Your task to perform on an android device: What's the weather? Image 0: 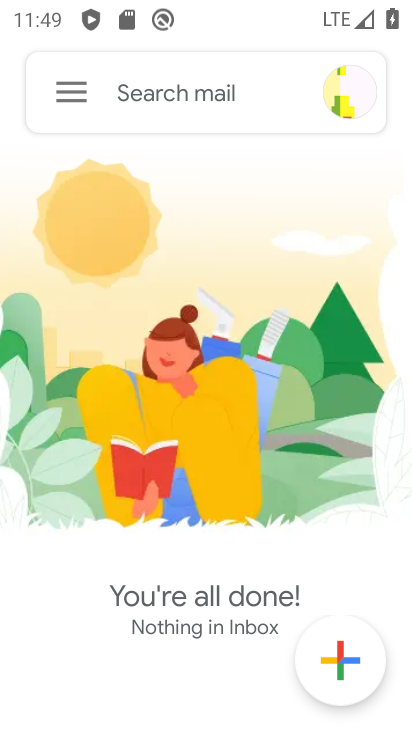
Step 0: press home button
Your task to perform on an android device: What's the weather? Image 1: 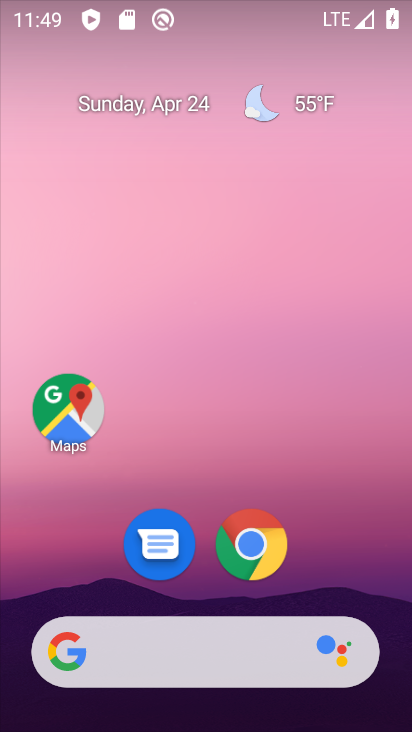
Step 1: click (239, 551)
Your task to perform on an android device: What's the weather? Image 2: 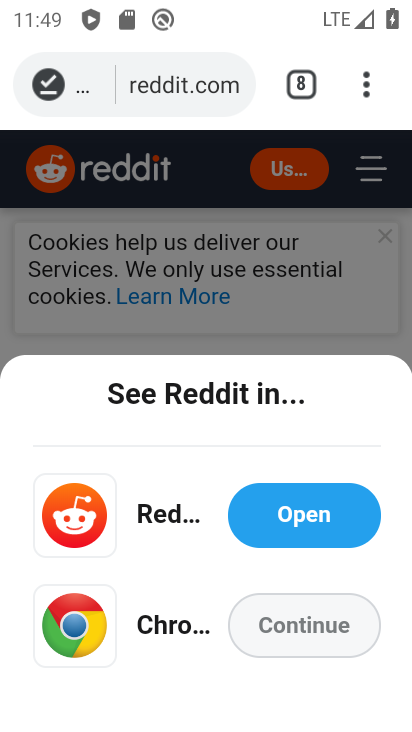
Step 2: click (303, 94)
Your task to perform on an android device: What's the weather? Image 3: 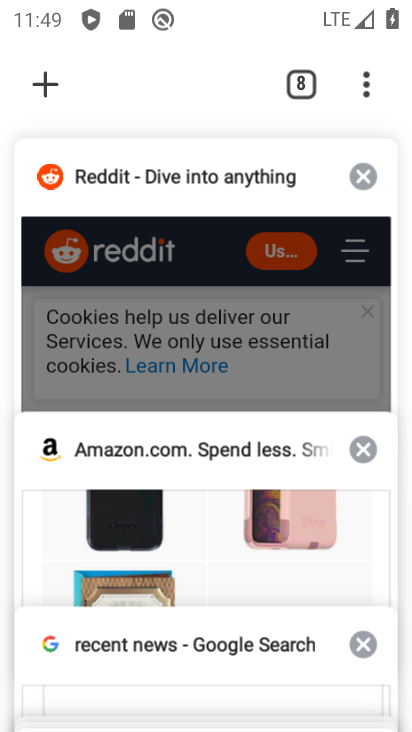
Step 3: drag from (194, 589) to (200, 147)
Your task to perform on an android device: What's the weather? Image 4: 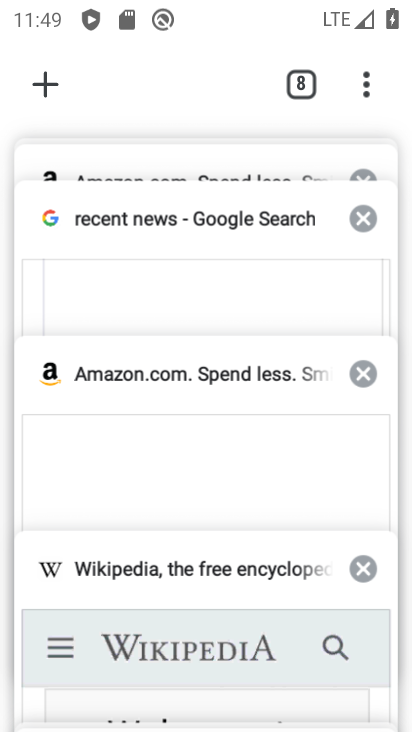
Step 4: drag from (132, 624) to (124, 219)
Your task to perform on an android device: What's the weather? Image 5: 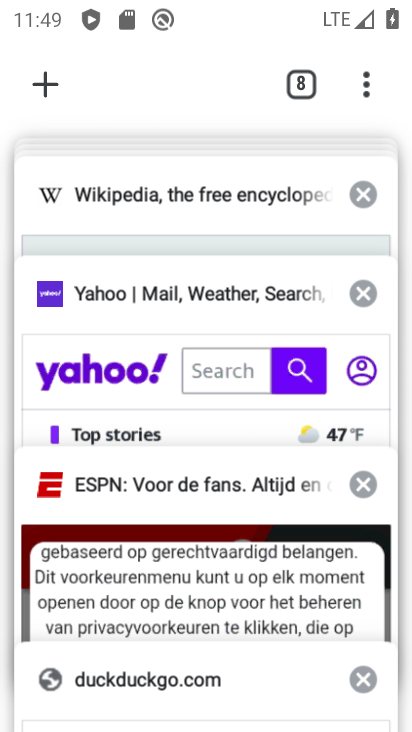
Step 5: drag from (129, 623) to (146, 300)
Your task to perform on an android device: What's the weather? Image 6: 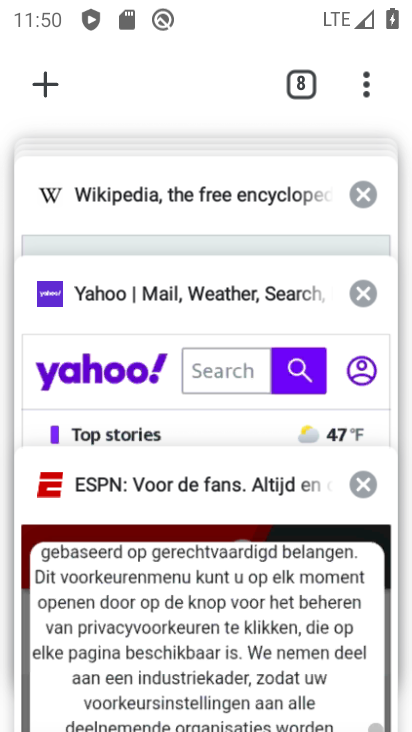
Step 6: drag from (162, 571) to (170, 185)
Your task to perform on an android device: What's the weather? Image 7: 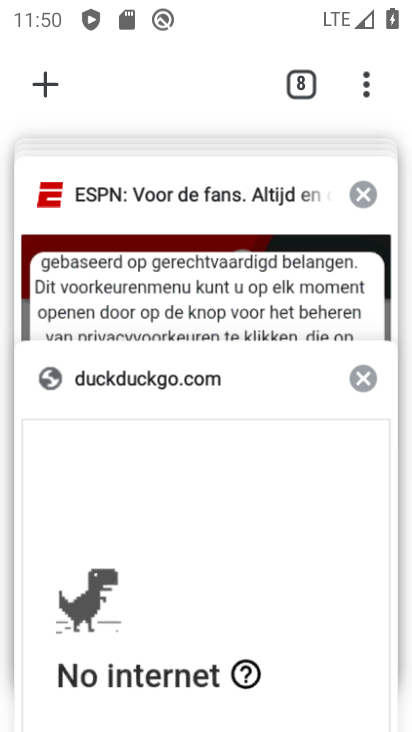
Step 7: click (44, 81)
Your task to perform on an android device: What's the weather? Image 8: 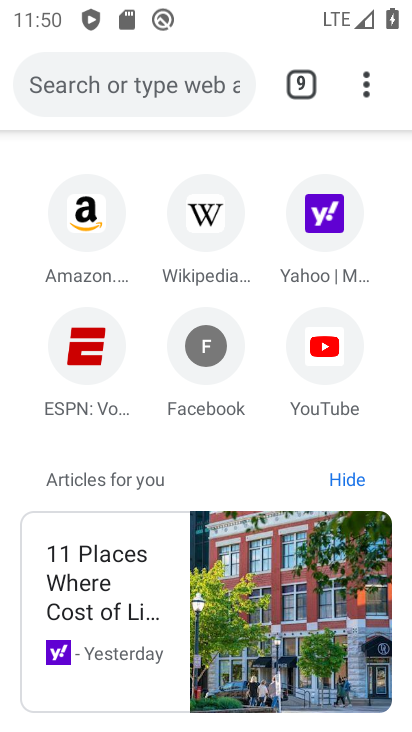
Step 8: click (153, 95)
Your task to perform on an android device: What's the weather? Image 9: 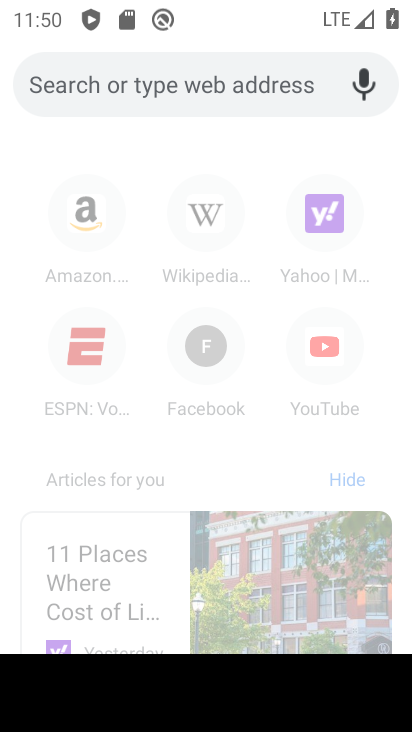
Step 9: type "what's the weather"
Your task to perform on an android device: What's the weather? Image 10: 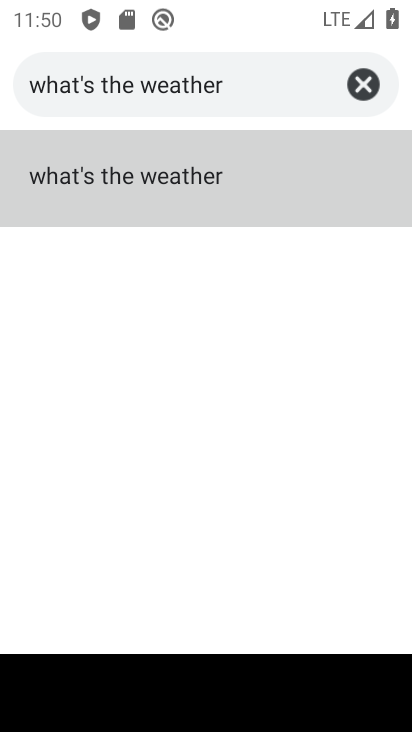
Step 10: click (96, 177)
Your task to perform on an android device: What's the weather? Image 11: 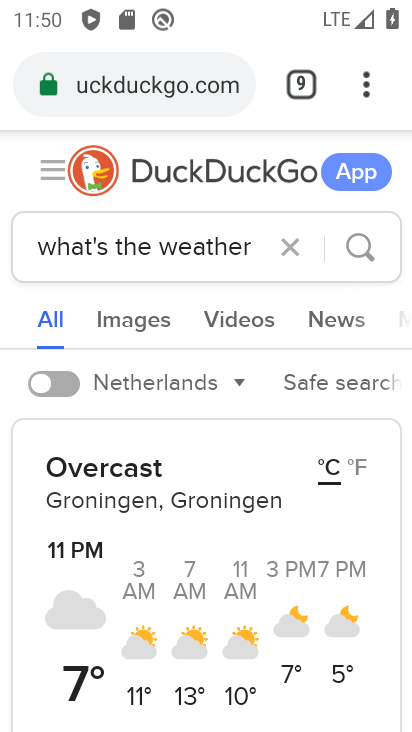
Step 11: task complete